Your task to perform on an android device: Open Chrome and go to the settings page Image 0: 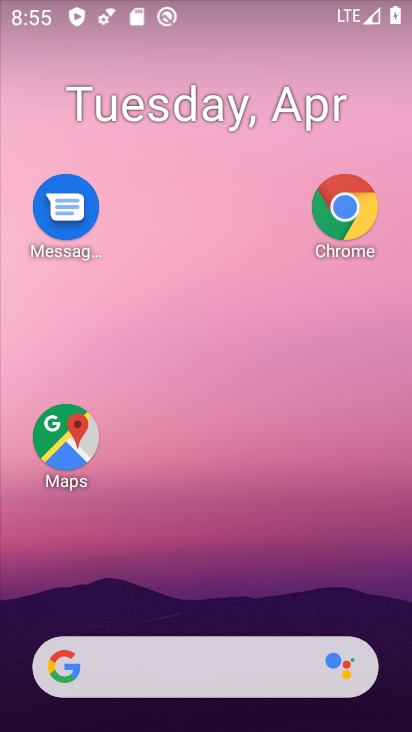
Step 0: click (347, 225)
Your task to perform on an android device: Open Chrome and go to the settings page Image 1: 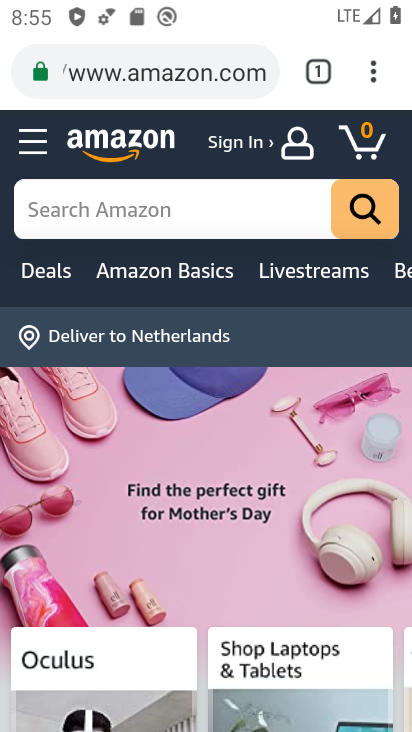
Step 1: click (372, 83)
Your task to perform on an android device: Open Chrome and go to the settings page Image 2: 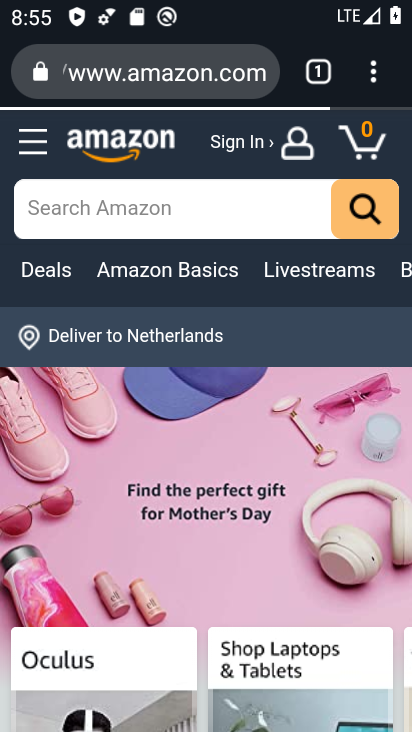
Step 2: click (369, 86)
Your task to perform on an android device: Open Chrome and go to the settings page Image 3: 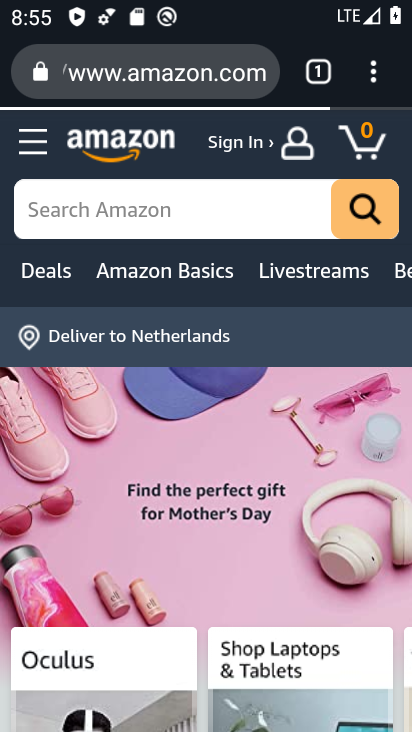
Step 3: click (360, 86)
Your task to perform on an android device: Open Chrome and go to the settings page Image 4: 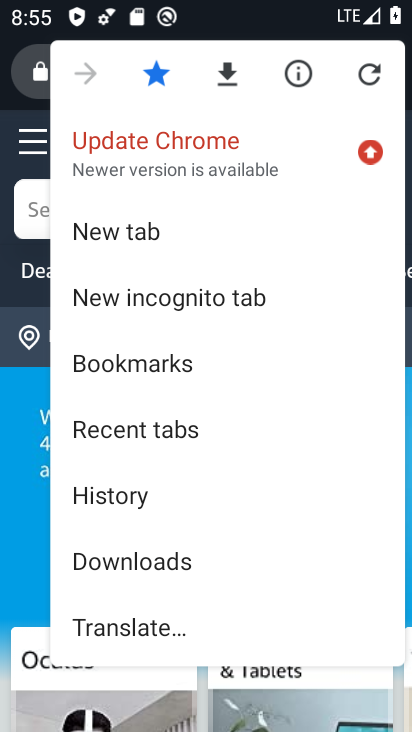
Step 4: drag from (103, 621) to (69, 109)
Your task to perform on an android device: Open Chrome and go to the settings page Image 5: 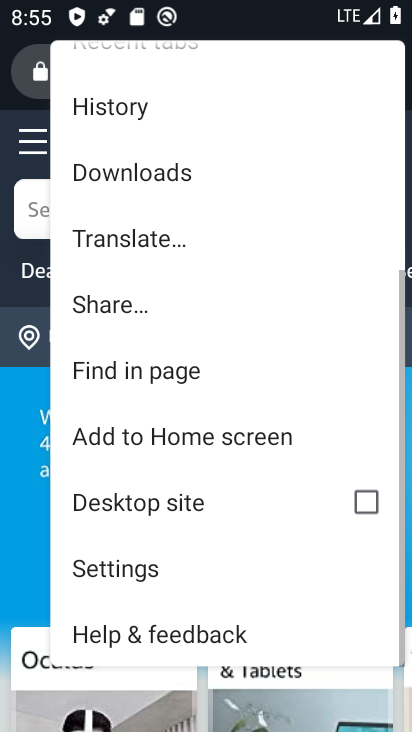
Step 5: click (132, 576)
Your task to perform on an android device: Open Chrome and go to the settings page Image 6: 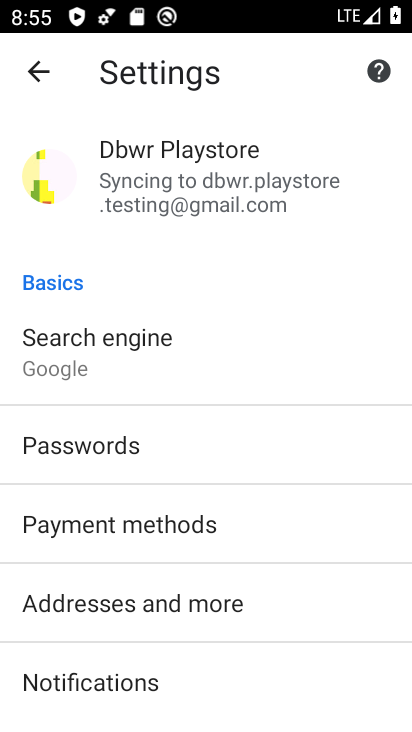
Step 6: task complete